Your task to perform on an android device: Open calendar and show me the first week of next month Image 0: 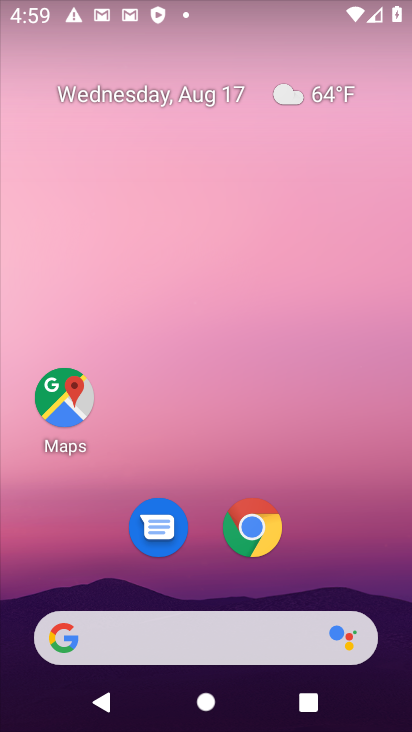
Step 0: drag from (177, 595) to (177, 349)
Your task to perform on an android device: Open calendar and show me the first week of next month Image 1: 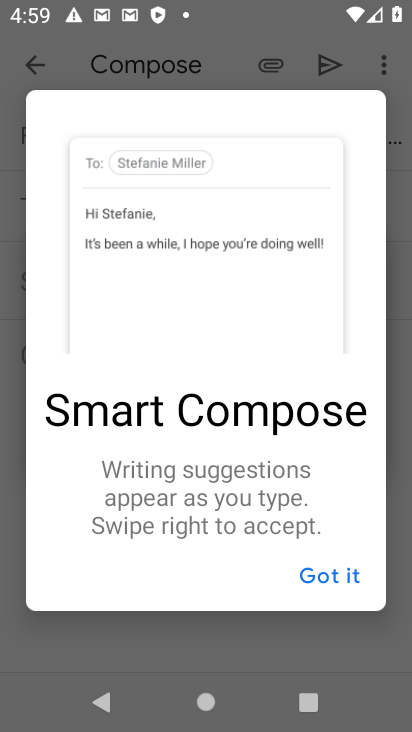
Step 1: press home button
Your task to perform on an android device: Open calendar and show me the first week of next month Image 2: 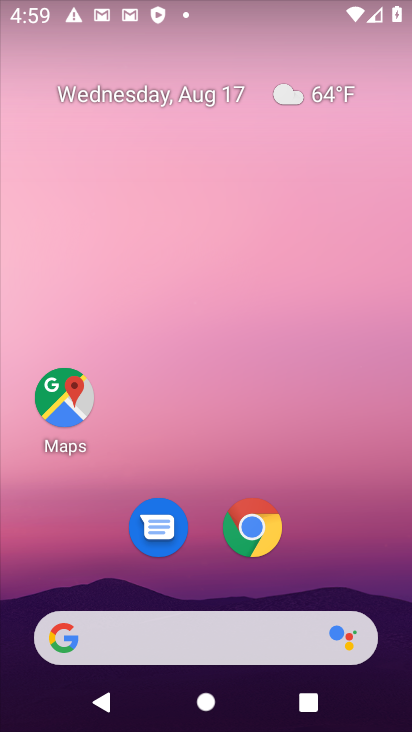
Step 2: drag from (152, 597) to (152, 191)
Your task to perform on an android device: Open calendar and show me the first week of next month Image 3: 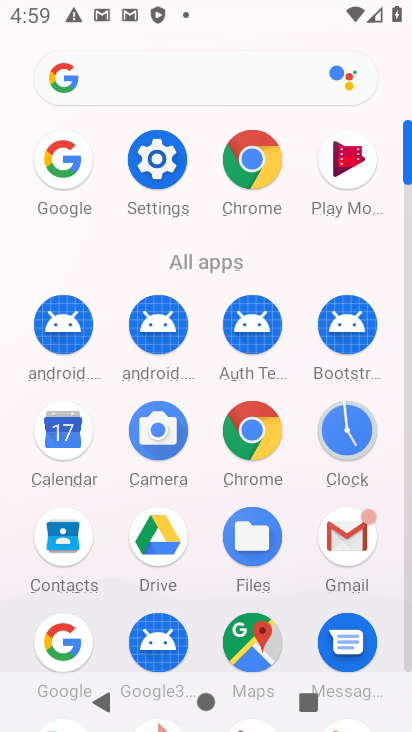
Step 3: click (52, 448)
Your task to perform on an android device: Open calendar and show me the first week of next month Image 4: 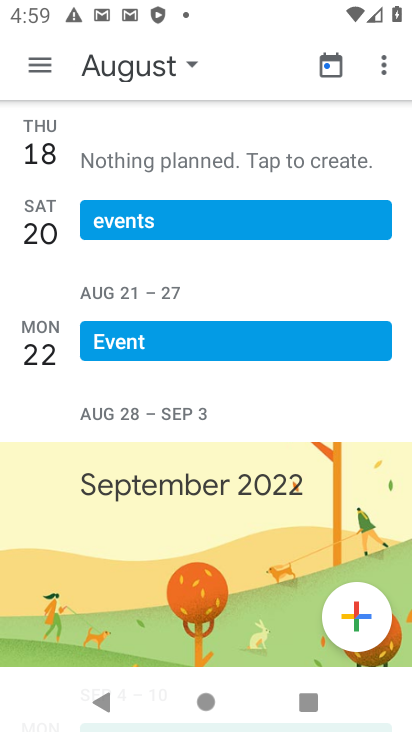
Step 4: click (119, 65)
Your task to perform on an android device: Open calendar and show me the first week of next month Image 5: 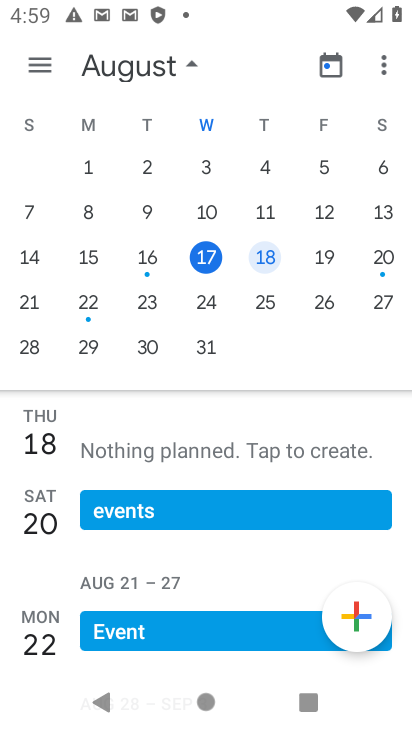
Step 5: drag from (388, 286) to (26, 335)
Your task to perform on an android device: Open calendar and show me the first week of next month Image 6: 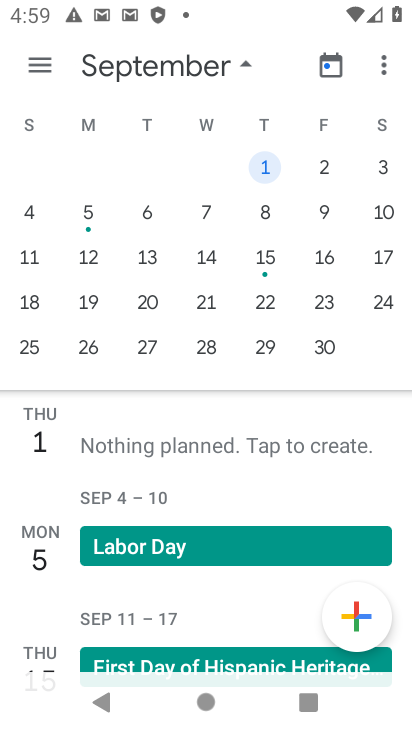
Step 6: click (261, 168)
Your task to perform on an android device: Open calendar and show me the first week of next month Image 7: 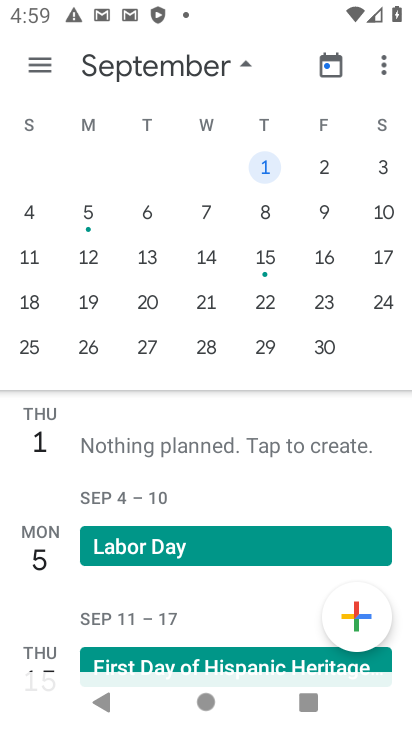
Step 7: task complete